Your task to perform on an android device: turn off wifi Image 0: 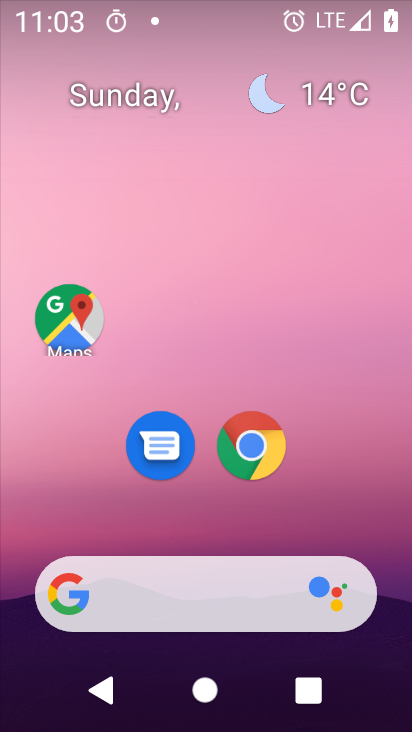
Step 0: drag from (193, 492) to (179, 0)
Your task to perform on an android device: turn off wifi Image 1: 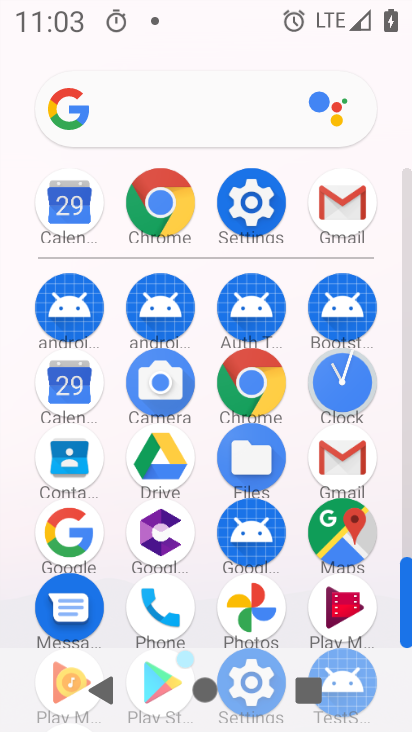
Step 1: click (265, 213)
Your task to perform on an android device: turn off wifi Image 2: 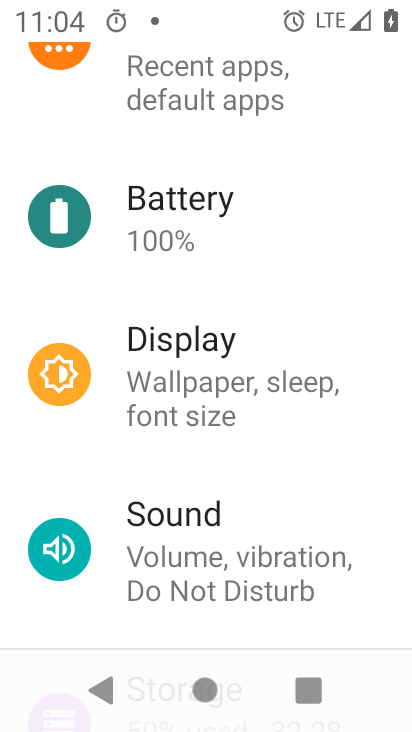
Step 2: drag from (219, 245) to (411, 717)
Your task to perform on an android device: turn off wifi Image 3: 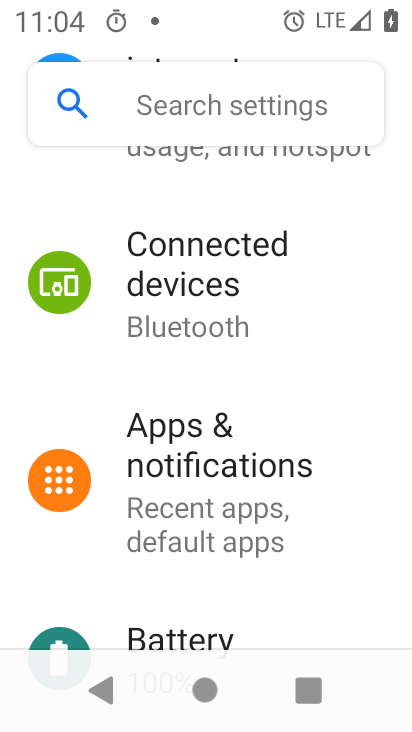
Step 3: drag from (240, 244) to (392, 517)
Your task to perform on an android device: turn off wifi Image 4: 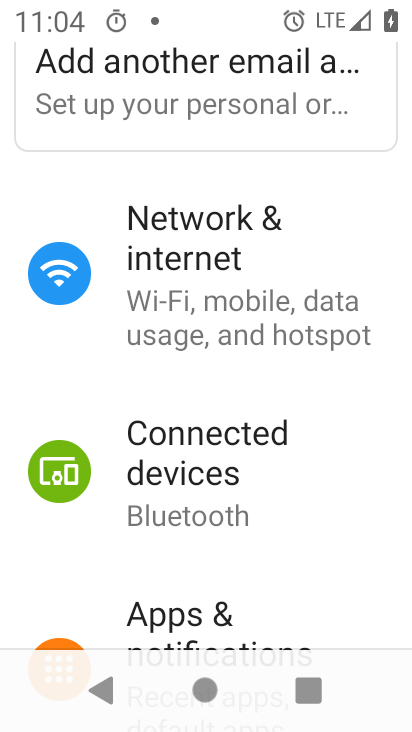
Step 4: click (175, 273)
Your task to perform on an android device: turn off wifi Image 5: 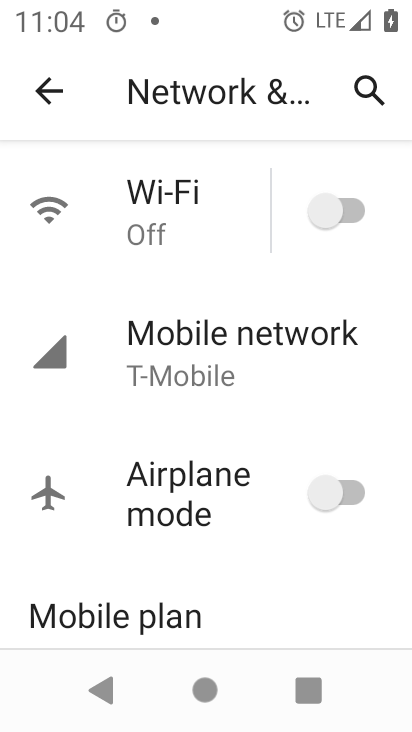
Step 5: task complete